Your task to perform on an android device: Open the web browser Image 0: 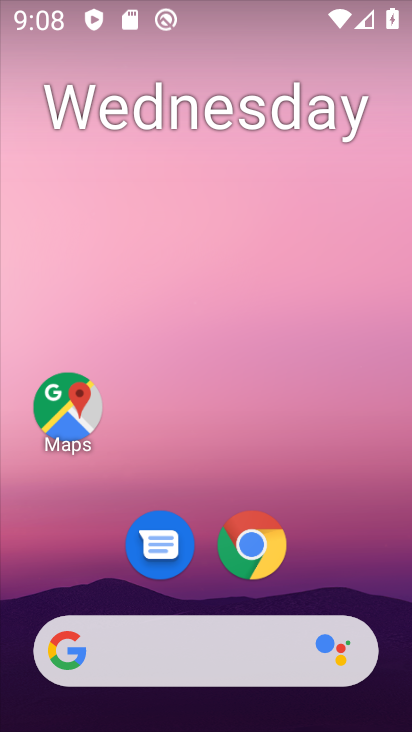
Step 0: drag from (404, 594) to (349, 141)
Your task to perform on an android device: Open the web browser Image 1: 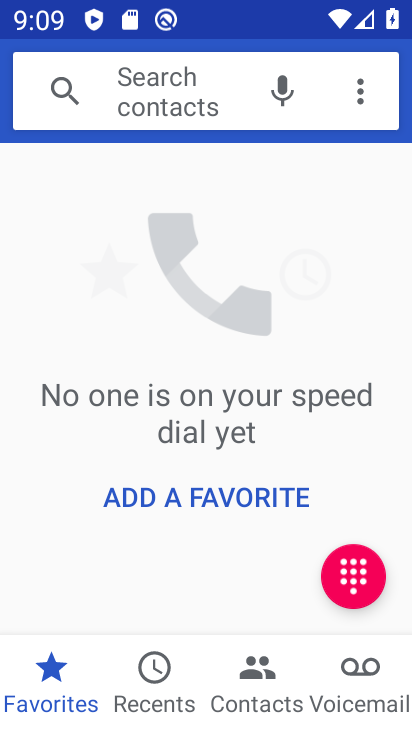
Step 1: press home button
Your task to perform on an android device: Open the web browser Image 2: 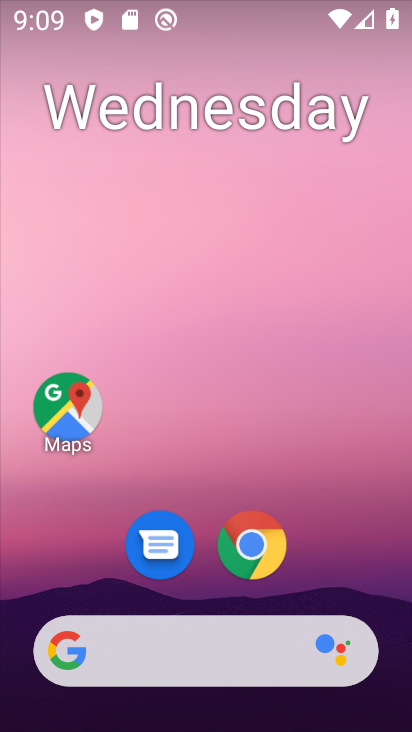
Step 2: click (277, 565)
Your task to perform on an android device: Open the web browser Image 3: 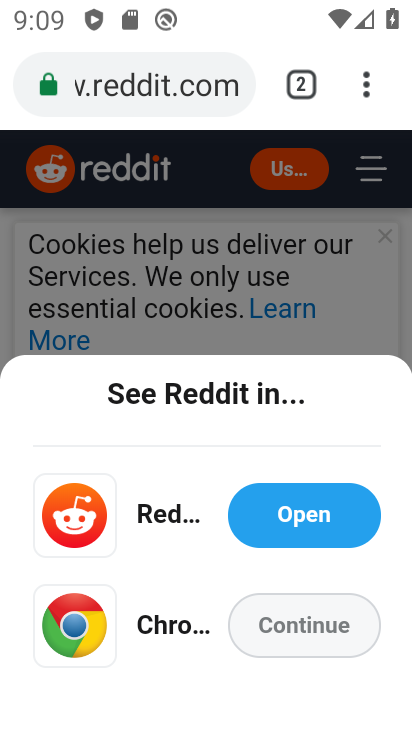
Step 3: task complete